Your task to perform on an android device: Open sound settings Image 0: 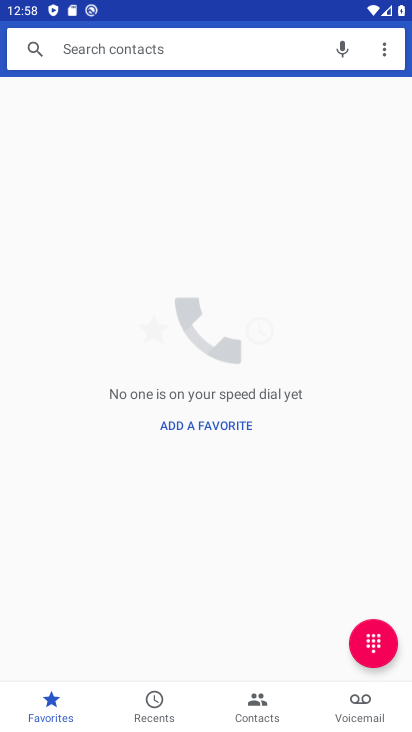
Step 0: drag from (223, 634) to (239, 559)
Your task to perform on an android device: Open sound settings Image 1: 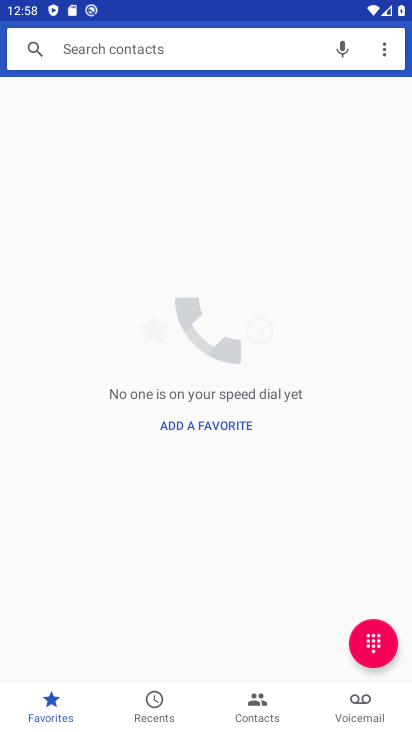
Step 1: press home button
Your task to perform on an android device: Open sound settings Image 2: 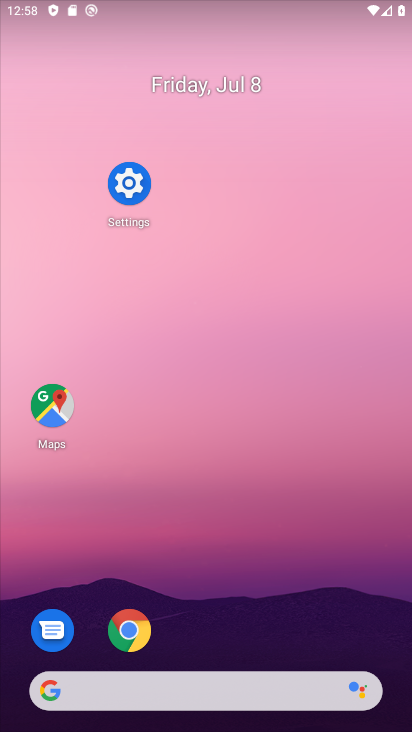
Step 2: click (124, 192)
Your task to perform on an android device: Open sound settings Image 3: 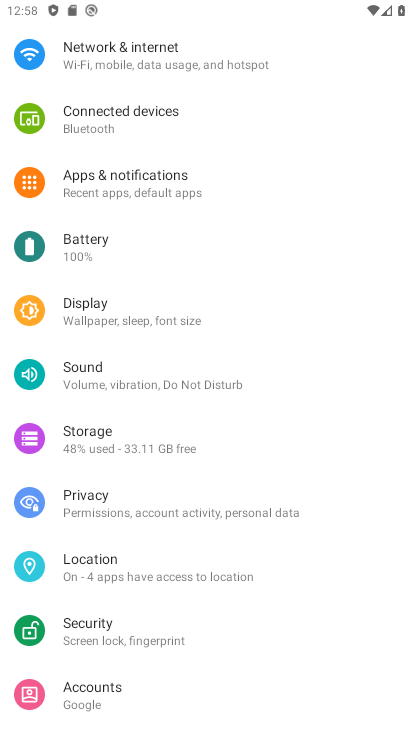
Step 3: click (117, 383)
Your task to perform on an android device: Open sound settings Image 4: 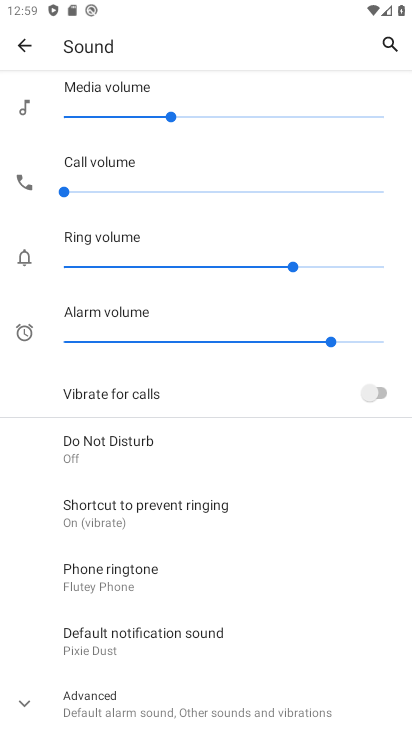
Step 4: task complete